Your task to perform on an android device: turn off notifications in google photos Image 0: 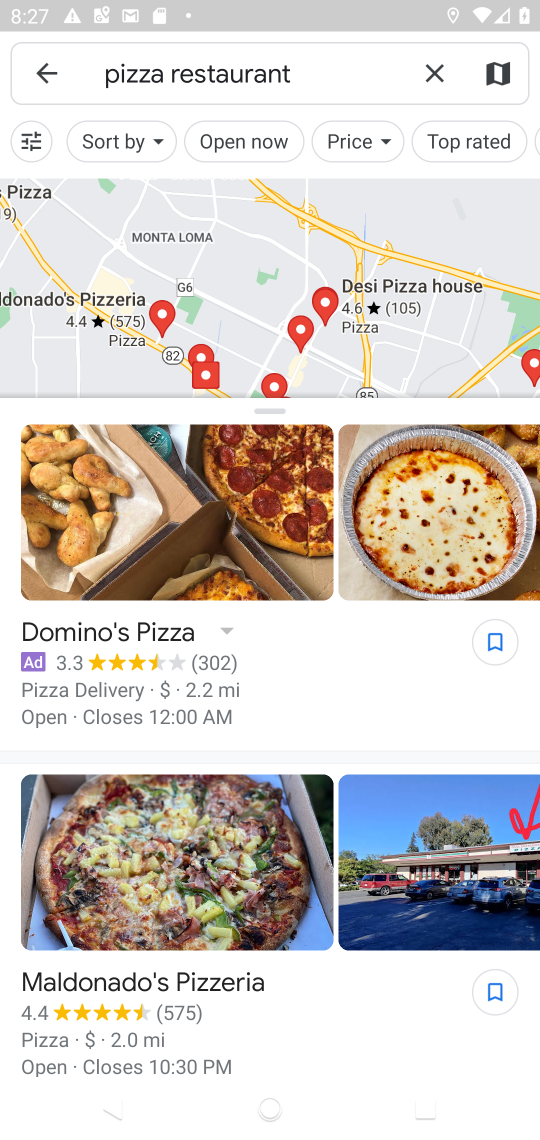
Step 0: press home button
Your task to perform on an android device: turn off notifications in google photos Image 1: 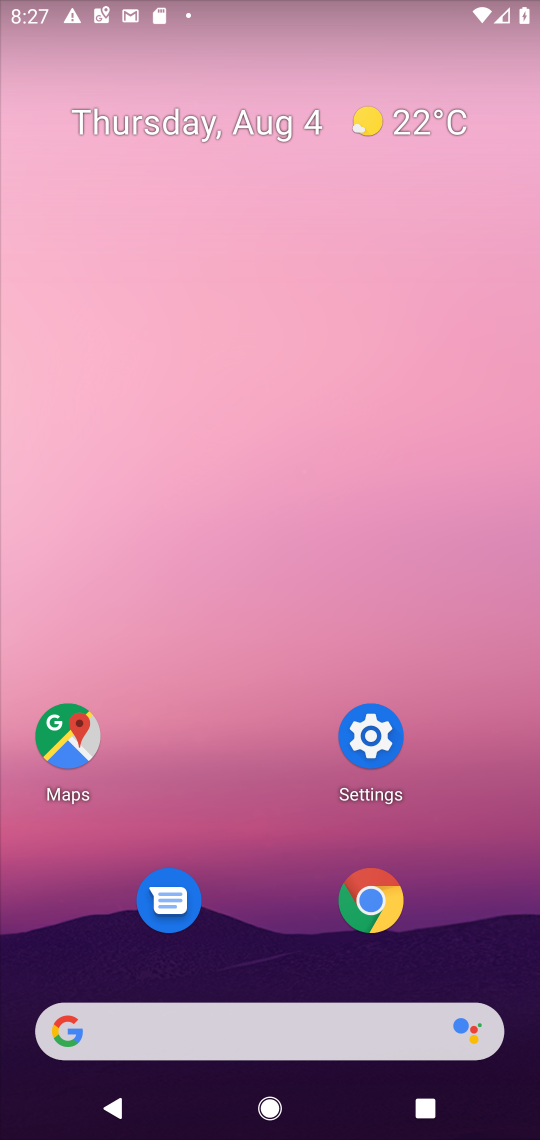
Step 1: drag from (308, 974) to (536, 167)
Your task to perform on an android device: turn off notifications in google photos Image 2: 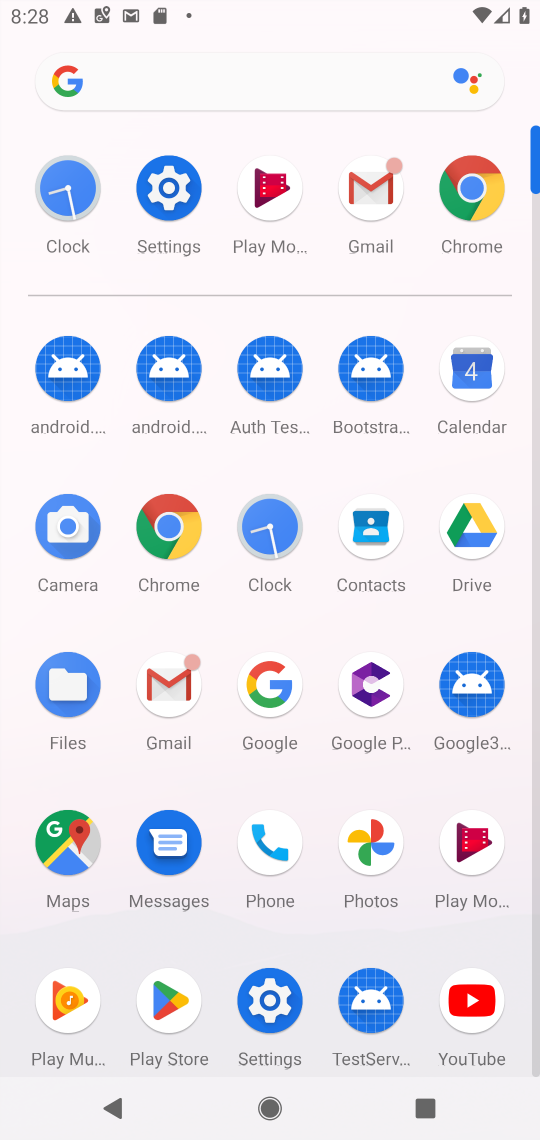
Step 2: click (379, 838)
Your task to perform on an android device: turn off notifications in google photos Image 3: 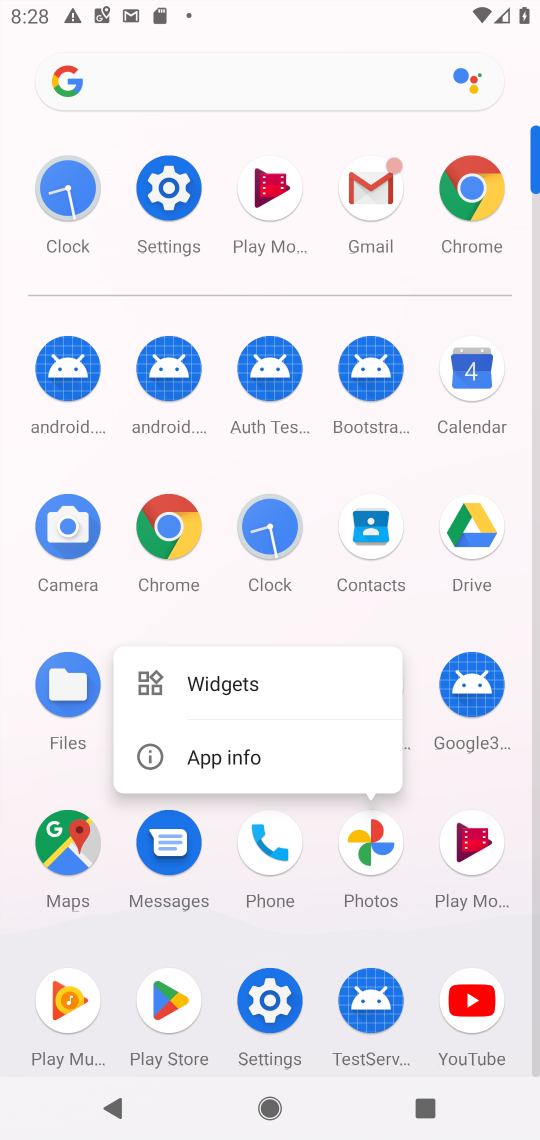
Step 3: click (374, 843)
Your task to perform on an android device: turn off notifications in google photos Image 4: 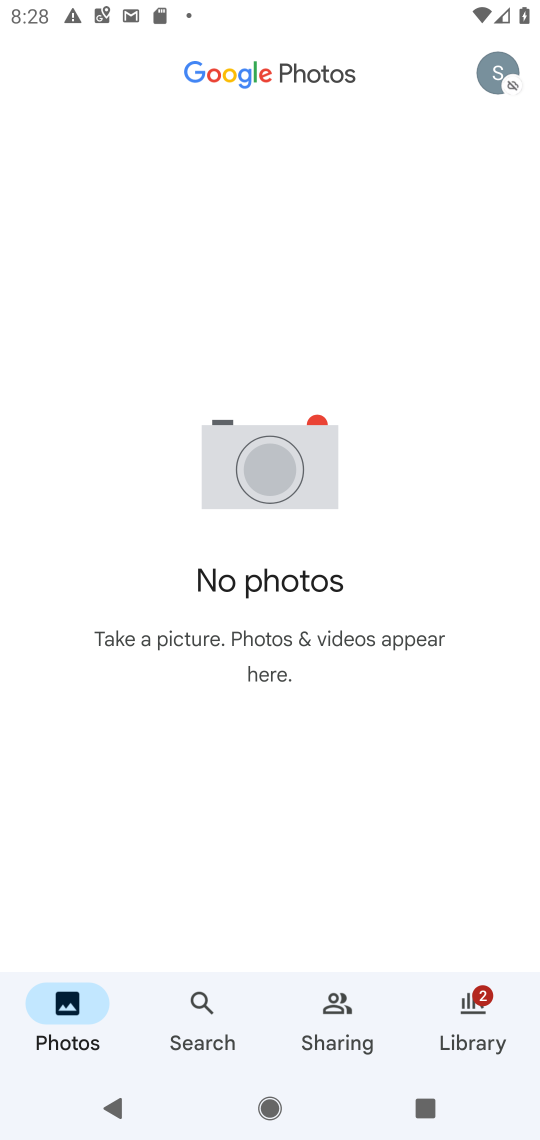
Step 4: click (494, 69)
Your task to perform on an android device: turn off notifications in google photos Image 5: 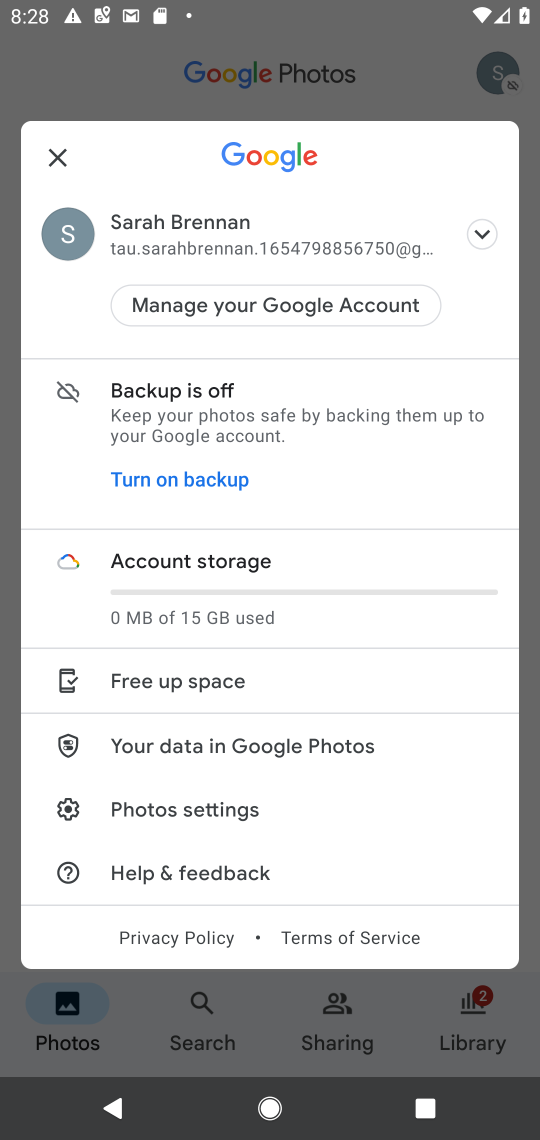
Step 5: click (218, 812)
Your task to perform on an android device: turn off notifications in google photos Image 6: 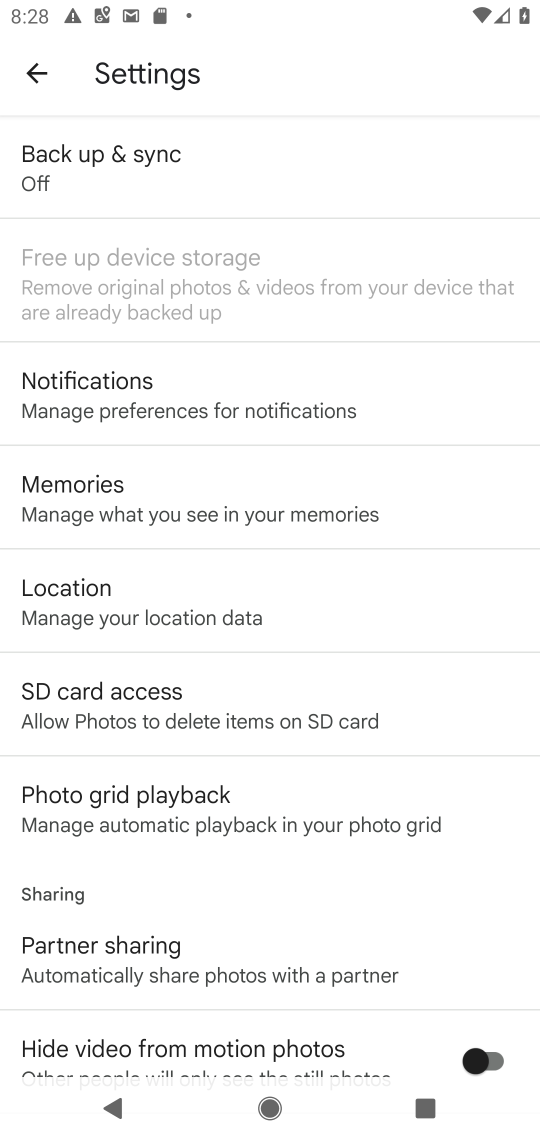
Step 6: click (221, 394)
Your task to perform on an android device: turn off notifications in google photos Image 7: 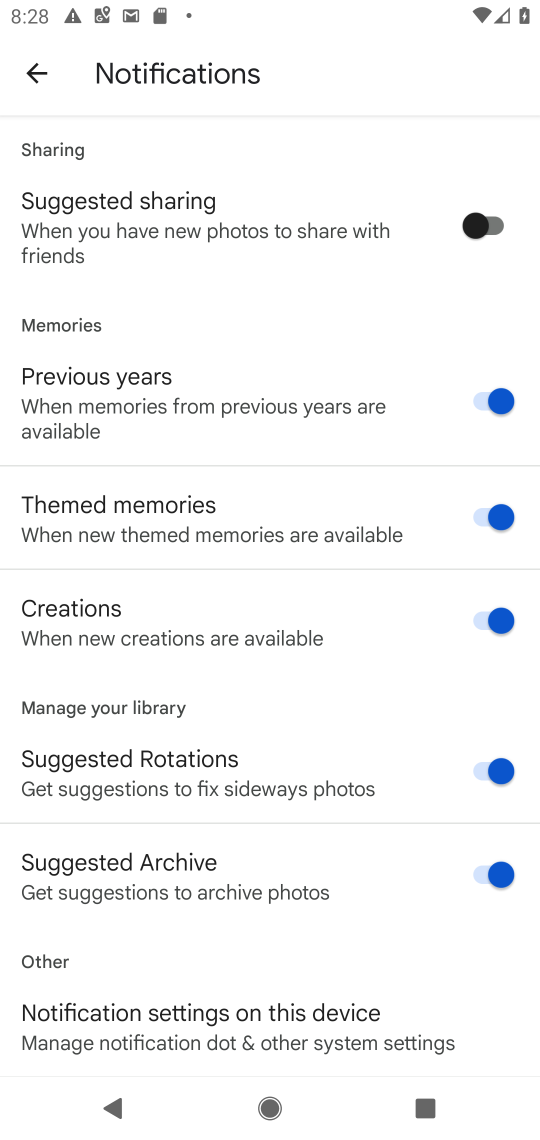
Step 7: drag from (188, 965) to (524, 54)
Your task to perform on an android device: turn off notifications in google photos Image 8: 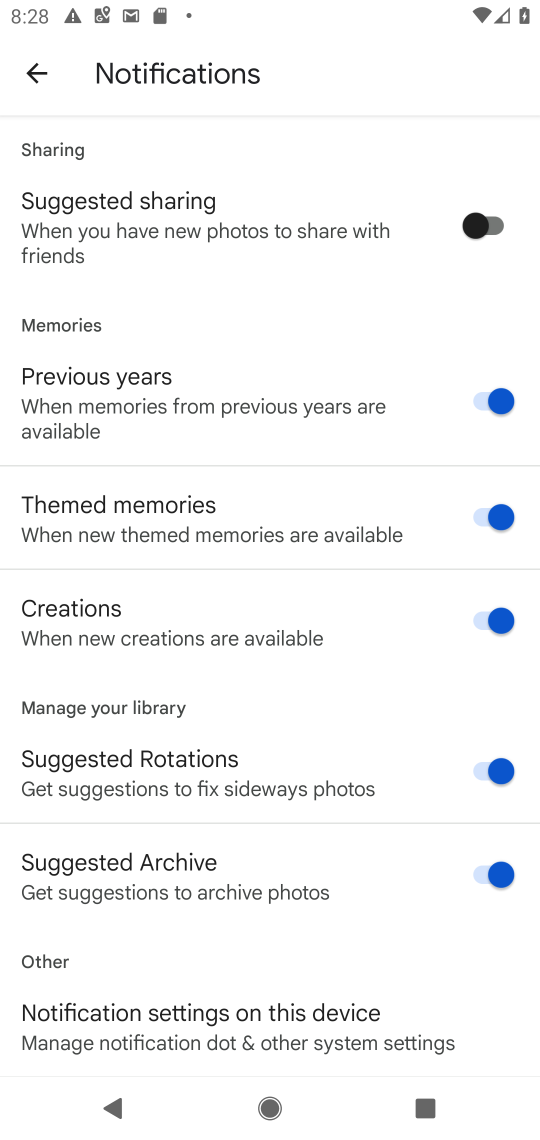
Step 8: drag from (325, 972) to (459, 309)
Your task to perform on an android device: turn off notifications in google photos Image 9: 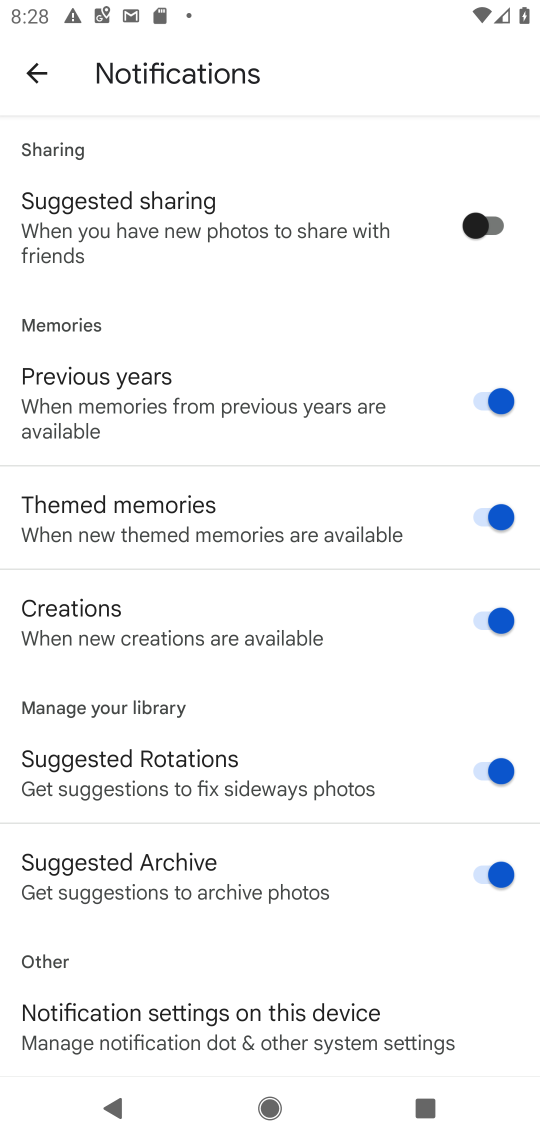
Step 9: drag from (118, 953) to (528, 113)
Your task to perform on an android device: turn off notifications in google photos Image 10: 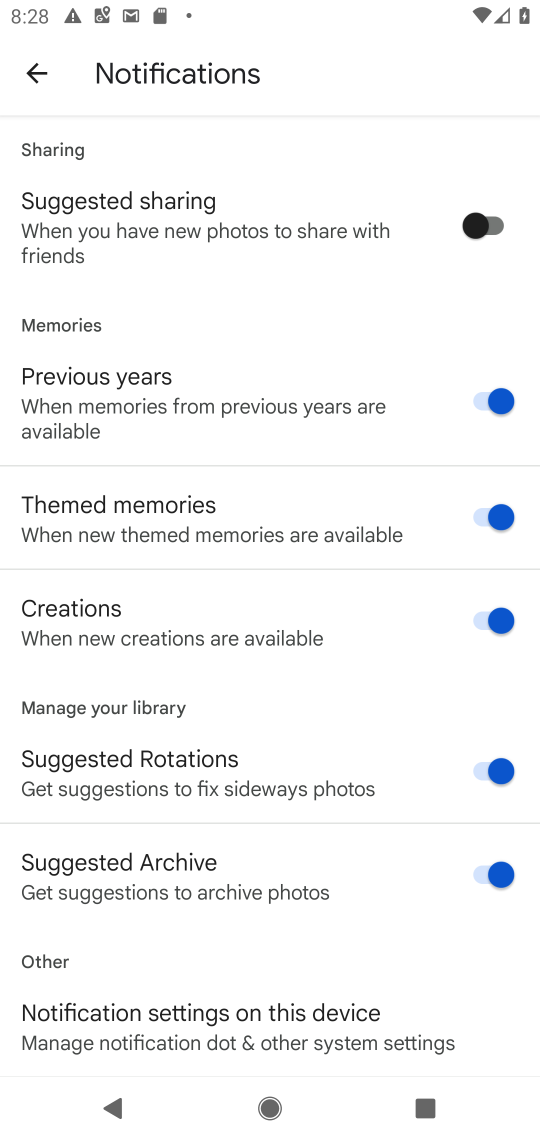
Step 10: drag from (389, 158) to (198, 1001)
Your task to perform on an android device: turn off notifications in google photos Image 11: 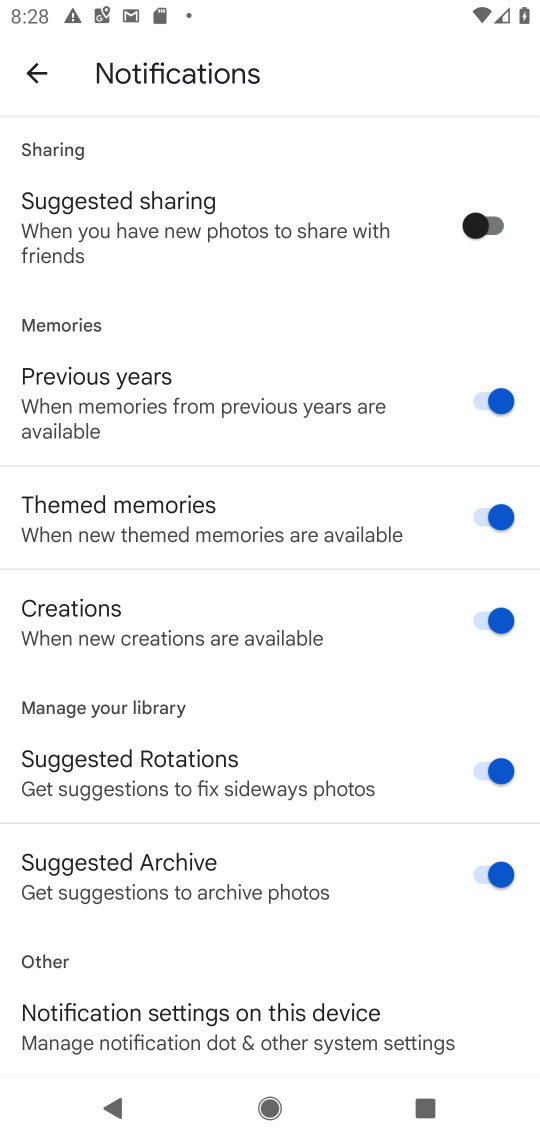
Step 11: click (160, 1031)
Your task to perform on an android device: turn off notifications in google photos Image 12: 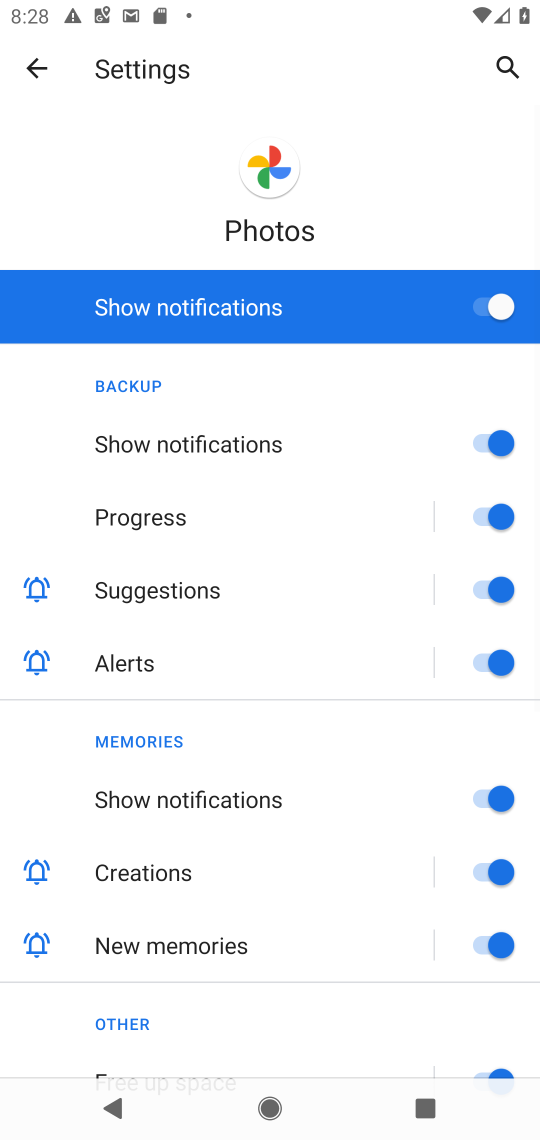
Step 12: click (479, 305)
Your task to perform on an android device: turn off notifications in google photos Image 13: 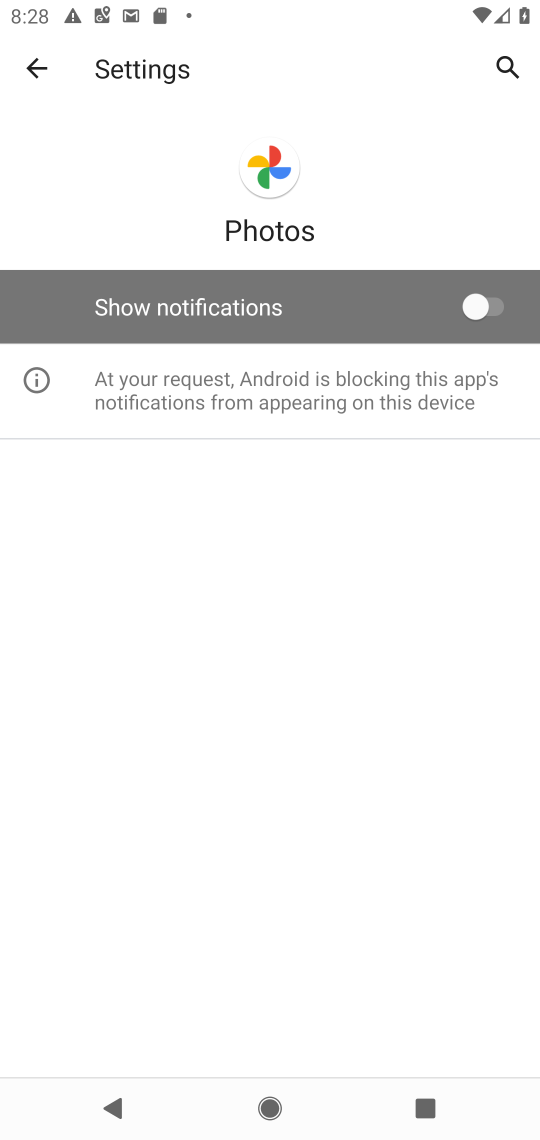
Step 13: task complete